Your task to perform on an android device: remove spam from my inbox in the gmail app Image 0: 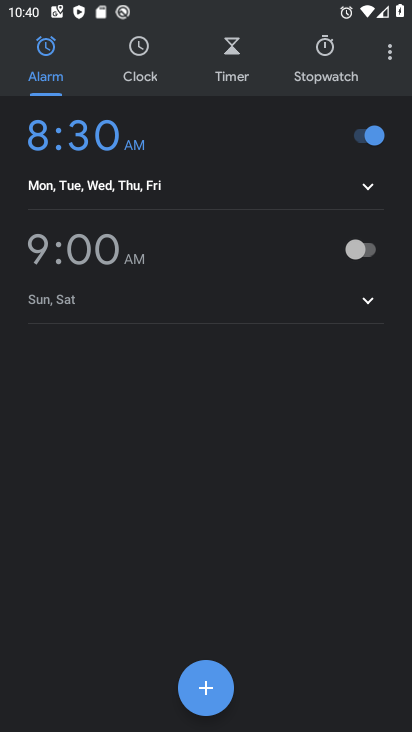
Step 0: press home button
Your task to perform on an android device: remove spam from my inbox in the gmail app Image 1: 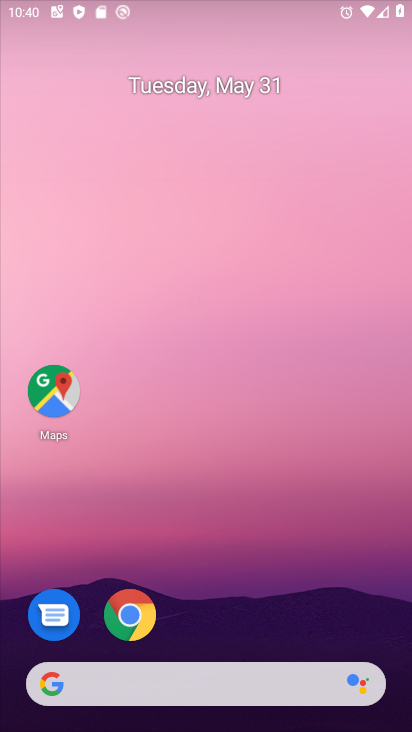
Step 1: drag from (348, 553) to (406, 273)
Your task to perform on an android device: remove spam from my inbox in the gmail app Image 2: 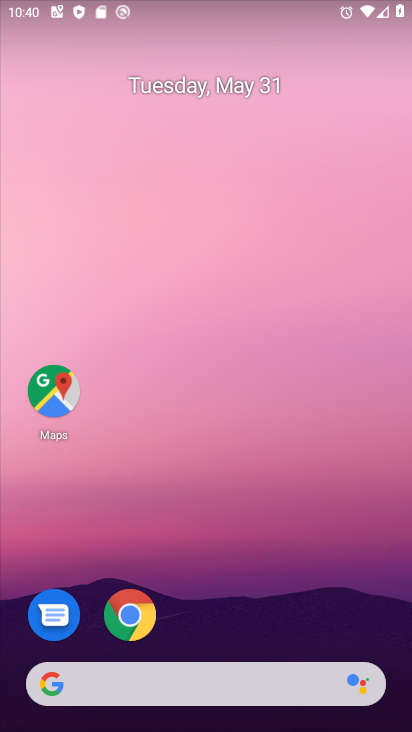
Step 2: drag from (337, 549) to (387, 162)
Your task to perform on an android device: remove spam from my inbox in the gmail app Image 3: 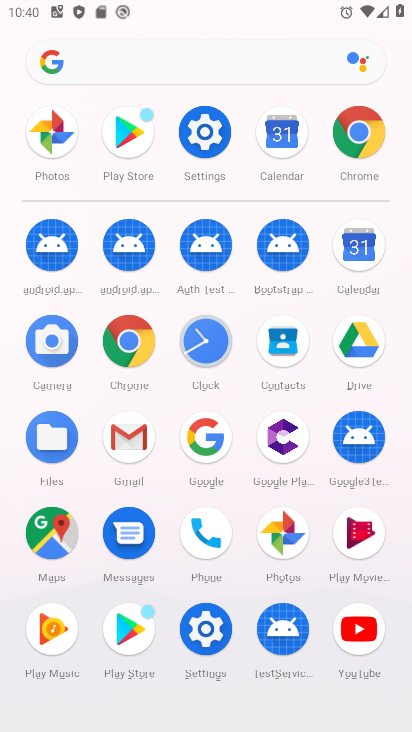
Step 3: click (139, 430)
Your task to perform on an android device: remove spam from my inbox in the gmail app Image 4: 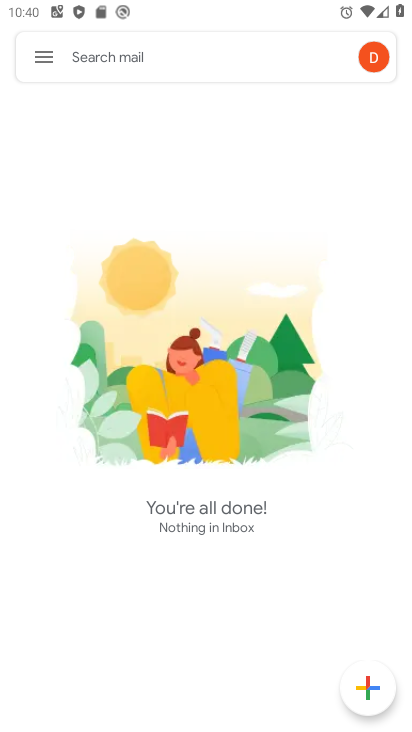
Step 4: click (53, 64)
Your task to perform on an android device: remove spam from my inbox in the gmail app Image 5: 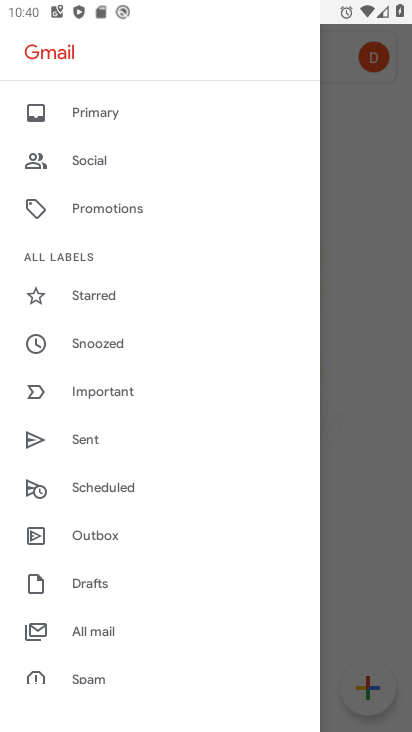
Step 5: drag from (143, 577) to (214, 98)
Your task to perform on an android device: remove spam from my inbox in the gmail app Image 6: 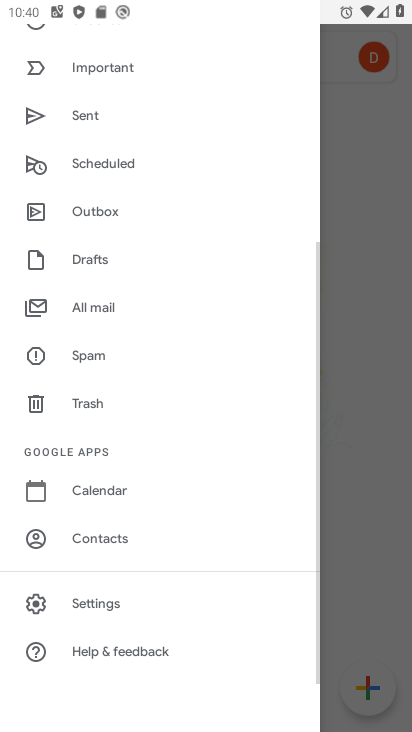
Step 6: click (108, 372)
Your task to perform on an android device: remove spam from my inbox in the gmail app Image 7: 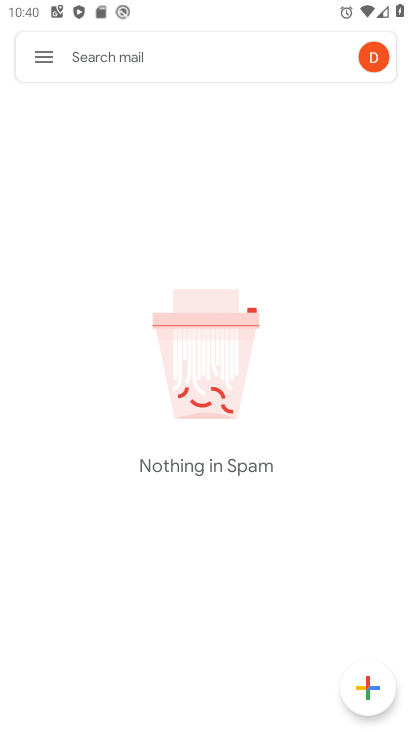
Step 7: task complete